Your task to perform on an android device: Open Chrome and go to settings Image 0: 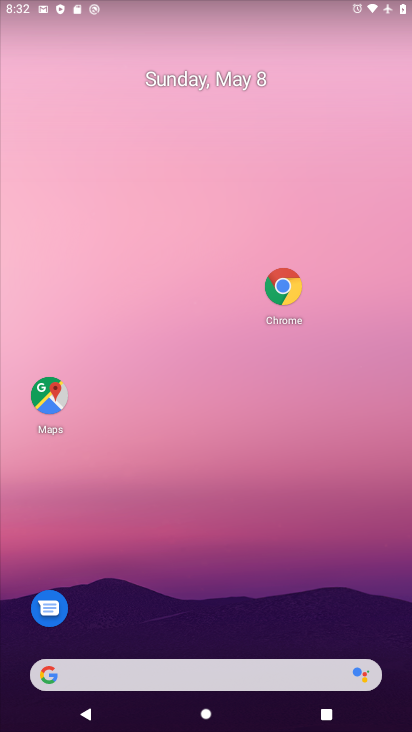
Step 0: click (286, 288)
Your task to perform on an android device: Open Chrome and go to settings Image 1: 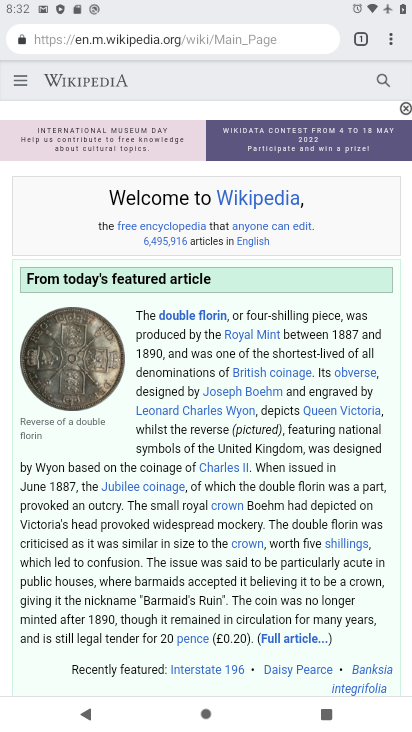
Step 1: drag from (390, 37) to (282, 473)
Your task to perform on an android device: Open Chrome and go to settings Image 2: 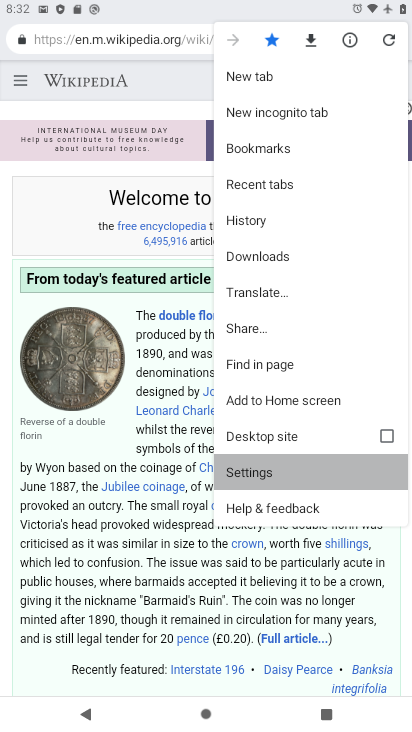
Step 2: click (282, 473)
Your task to perform on an android device: Open Chrome and go to settings Image 3: 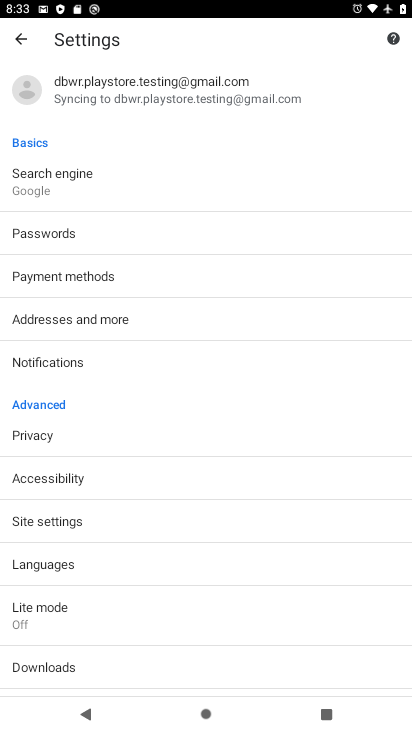
Step 3: task complete